Your task to perform on an android device: delete the emails in spam in the gmail app Image 0: 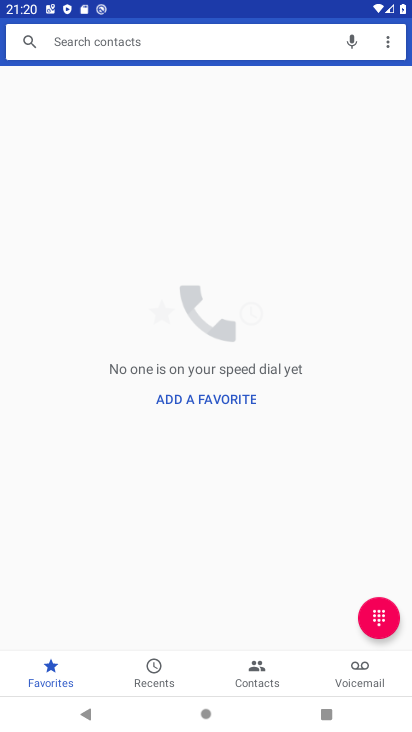
Step 0: press home button
Your task to perform on an android device: delete the emails in spam in the gmail app Image 1: 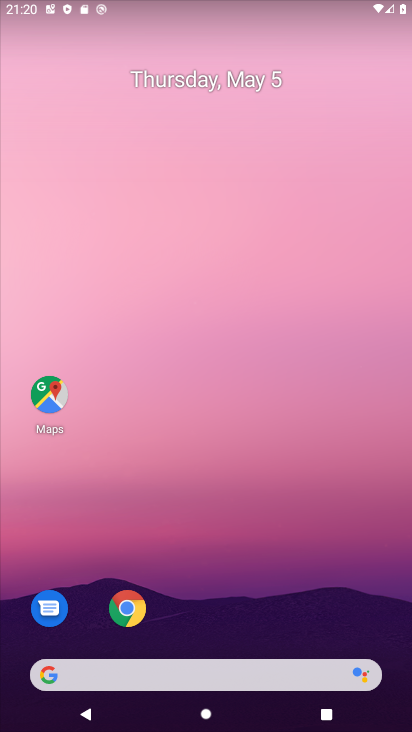
Step 1: drag from (234, 643) to (244, 216)
Your task to perform on an android device: delete the emails in spam in the gmail app Image 2: 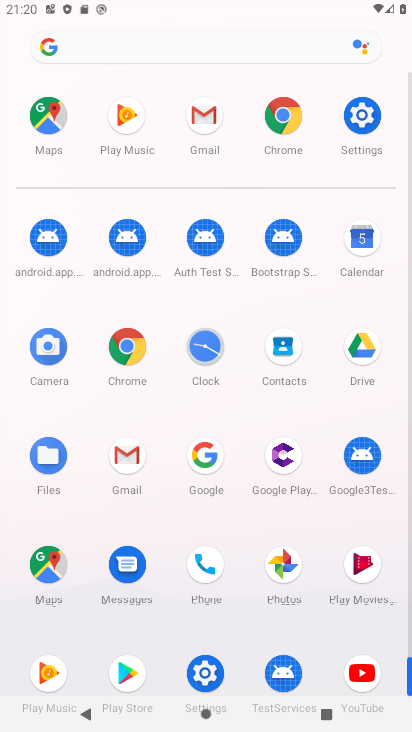
Step 2: click (127, 466)
Your task to perform on an android device: delete the emails in spam in the gmail app Image 3: 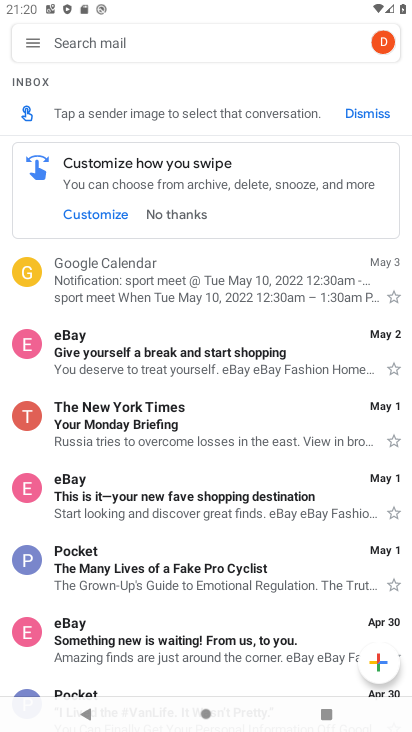
Step 3: click (32, 36)
Your task to perform on an android device: delete the emails in spam in the gmail app Image 4: 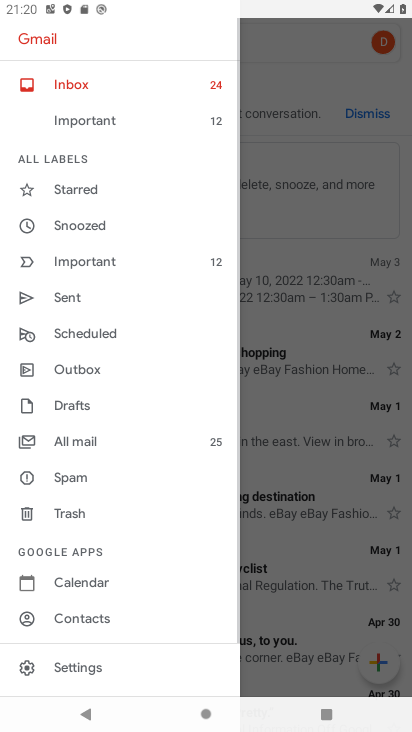
Step 4: click (99, 475)
Your task to perform on an android device: delete the emails in spam in the gmail app Image 5: 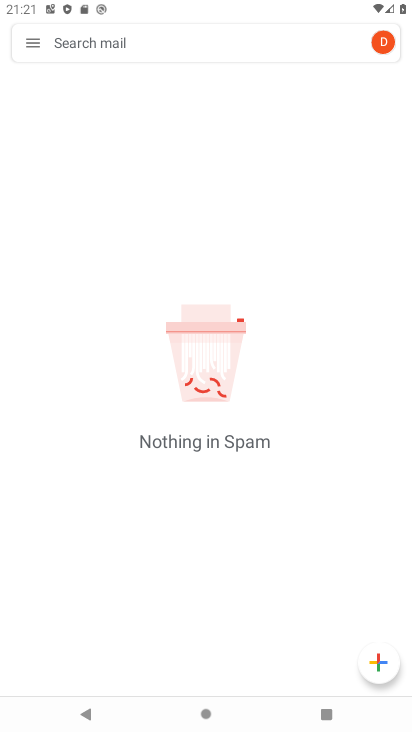
Step 5: task complete